Your task to perform on an android device: Open Maps and search for coffee Image 0: 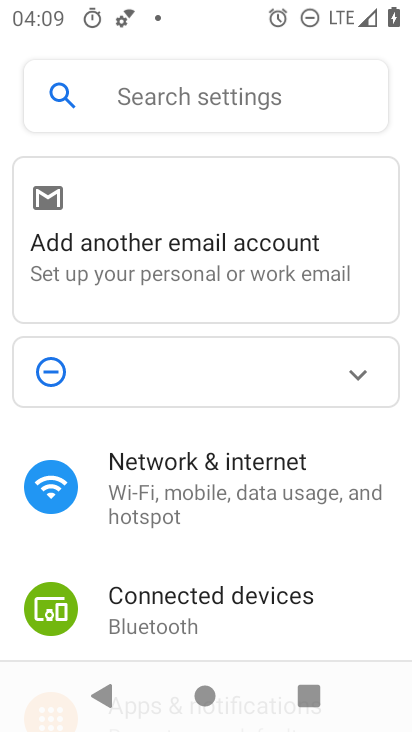
Step 0: press home button
Your task to perform on an android device: Open Maps and search for coffee Image 1: 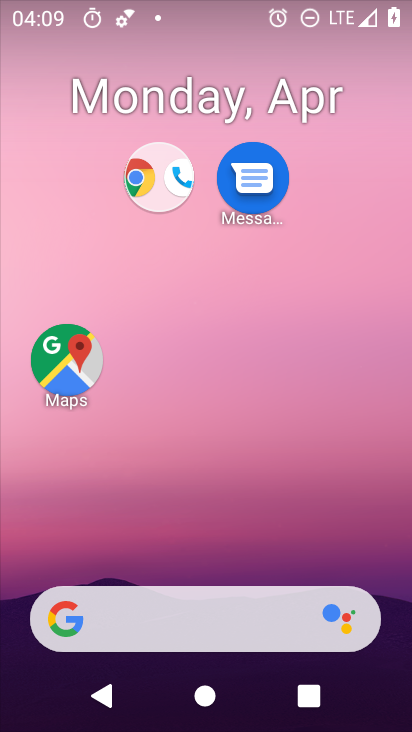
Step 1: drag from (268, 610) to (245, 28)
Your task to perform on an android device: Open Maps and search for coffee Image 2: 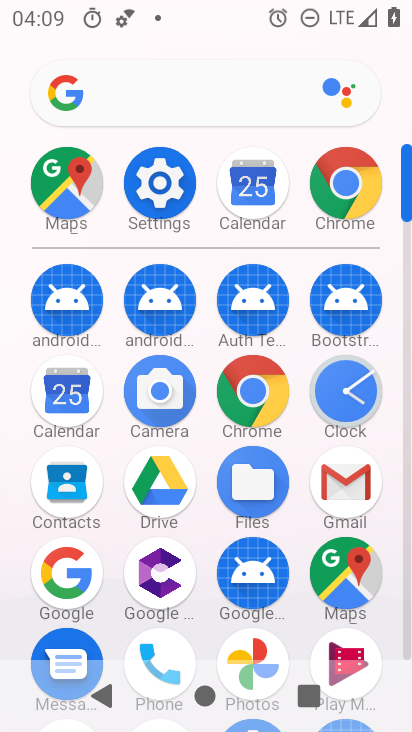
Step 2: click (327, 582)
Your task to perform on an android device: Open Maps and search for coffee Image 3: 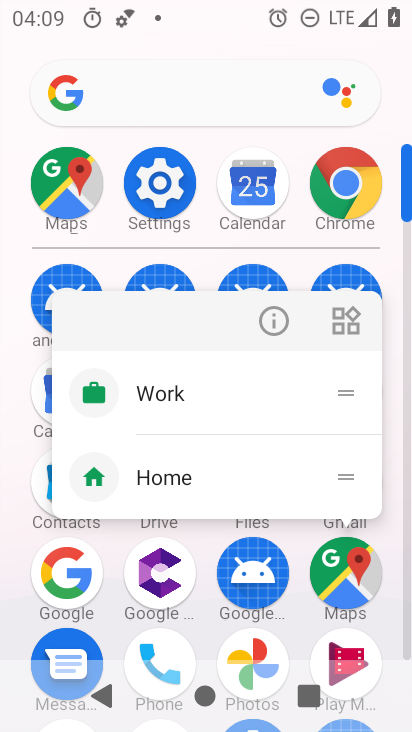
Step 3: click (327, 582)
Your task to perform on an android device: Open Maps and search for coffee Image 4: 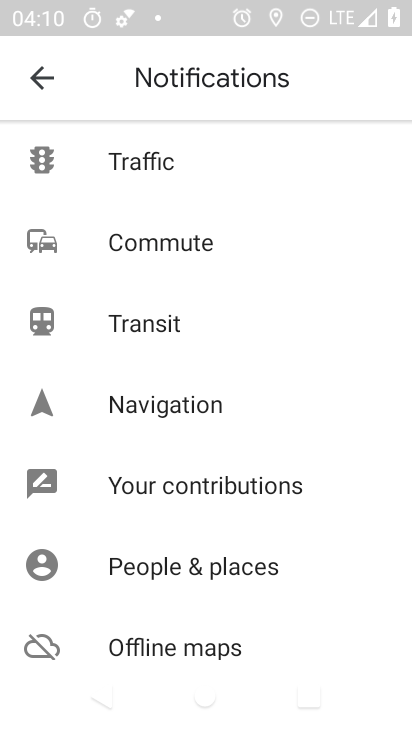
Step 4: press back button
Your task to perform on an android device: Open Maps and search for coffee Image 5: 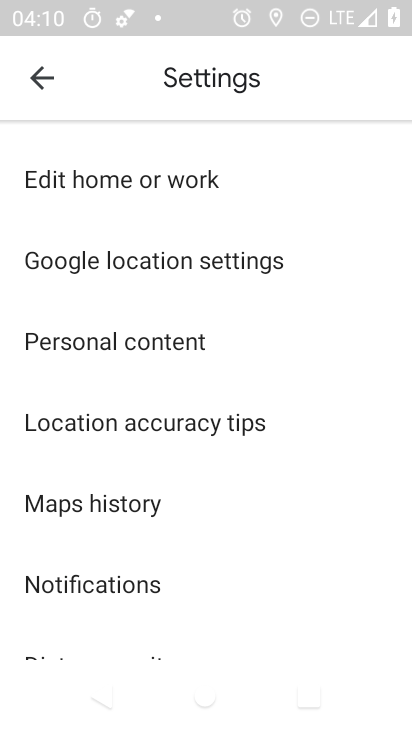
Step 5: press back button
Your task to perform on an android device: Open Maps and search for coffee Image 6: 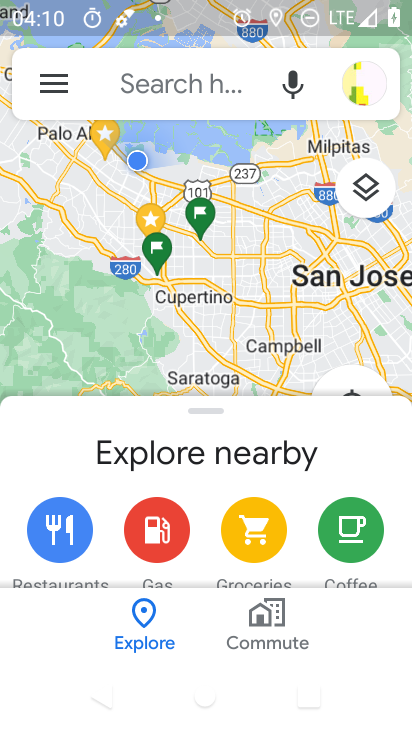
Step 6: click (230, 99)
Your task to perform on an android device: Open Maps and search for coffee Image 7: 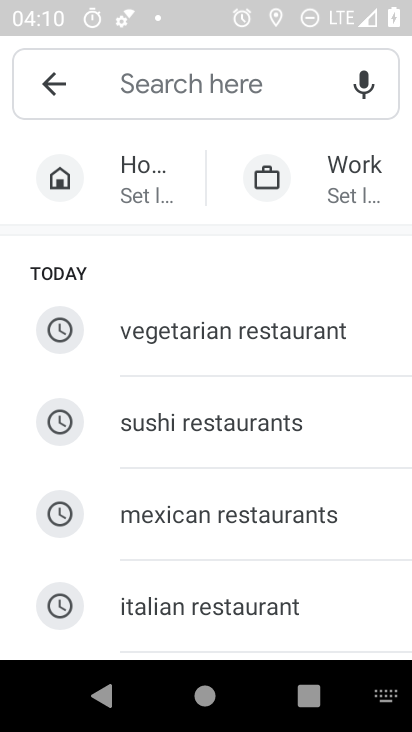
Step 7: type "coffee"
Your task to perform on an android device: Open Maps and search for coffee Image 8: 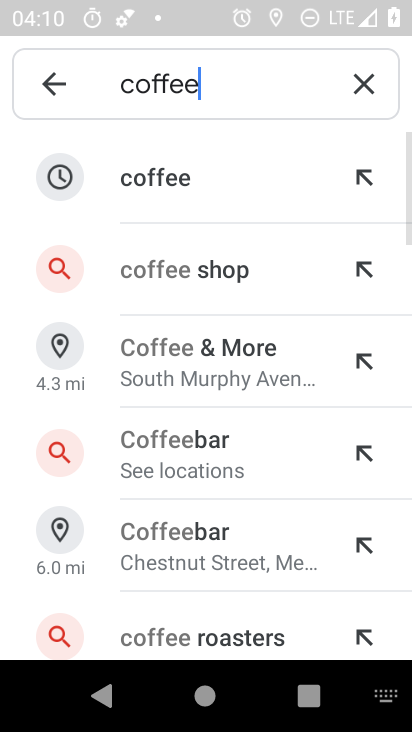
Step 8: click (141, 199)
Your task to perform on an android device: Open Maps and search for coffee Image 9: 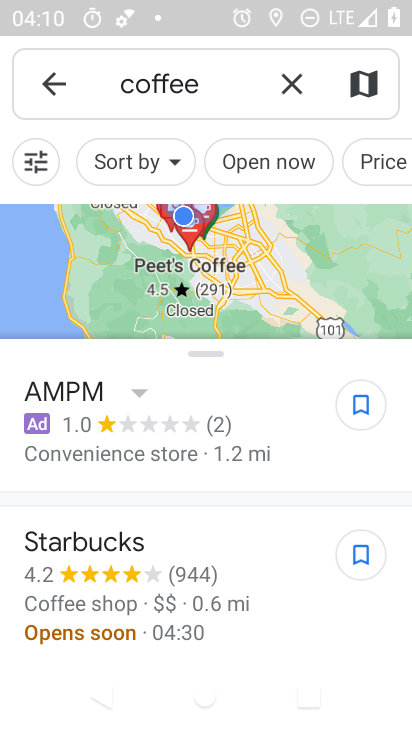
Step 9: task complete